Your task to perform on an android device: Search for flights from NYC to Paris Image 0: 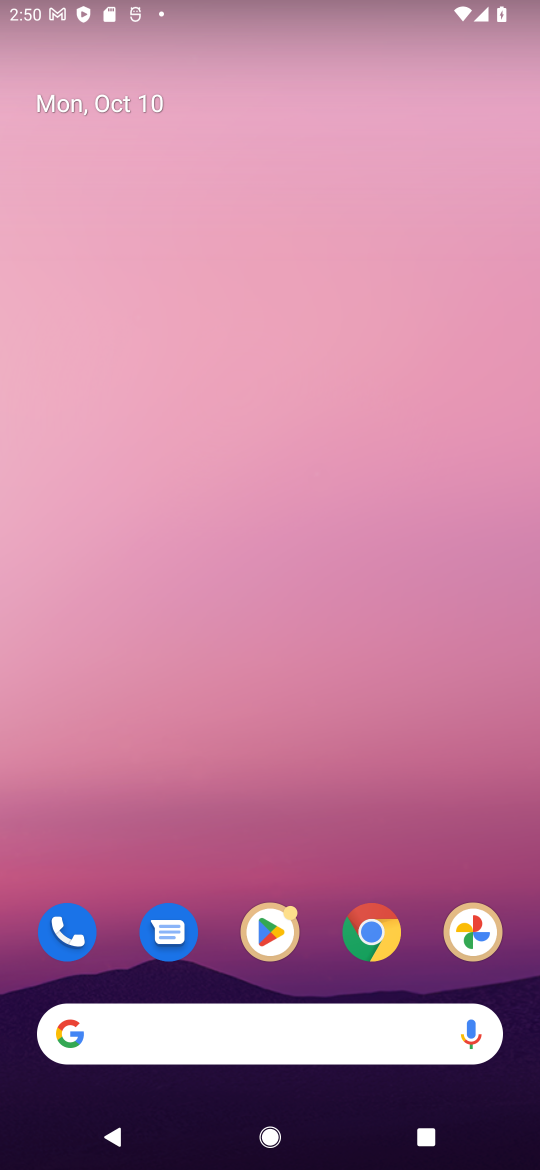
Step 0: press home button
Your task to perform on an android device: Search for flights from NYC to Paris Image 1: 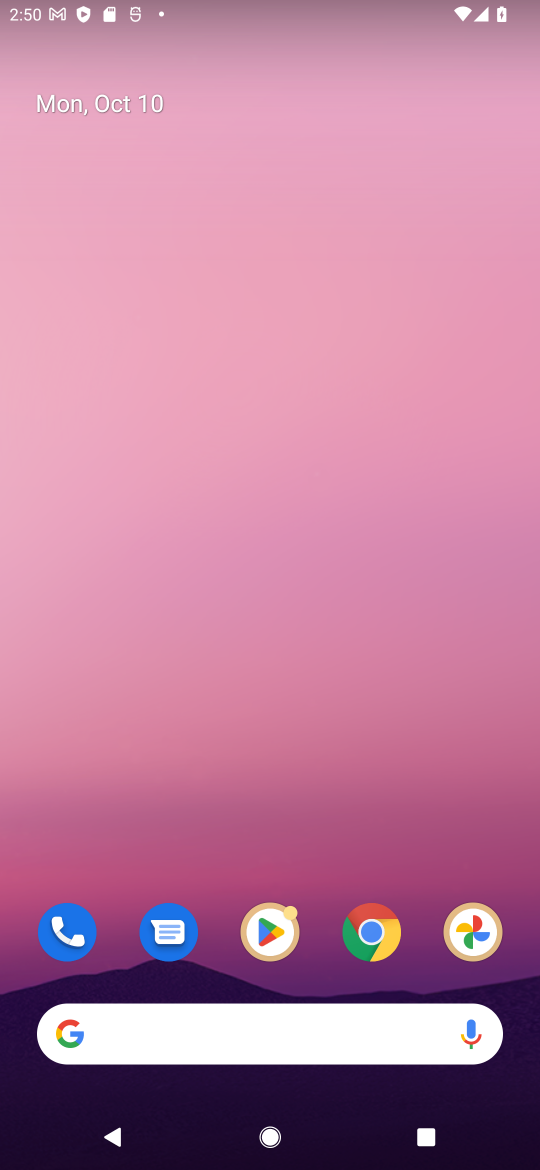
Step 1: click (246, 1044)
Your task to perform on an android device: Search for flights from NYC to Paris Image 2: 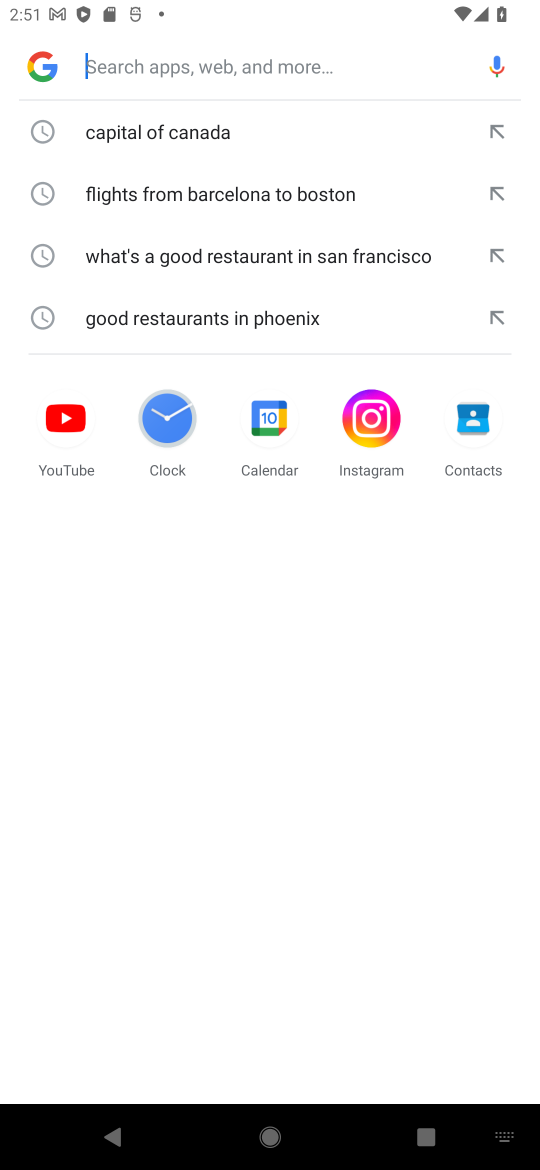
Step 2: type "flights from NYC to Paris"
Your task to perform on an android device: Search for flights from NYC to Paris Image 3: 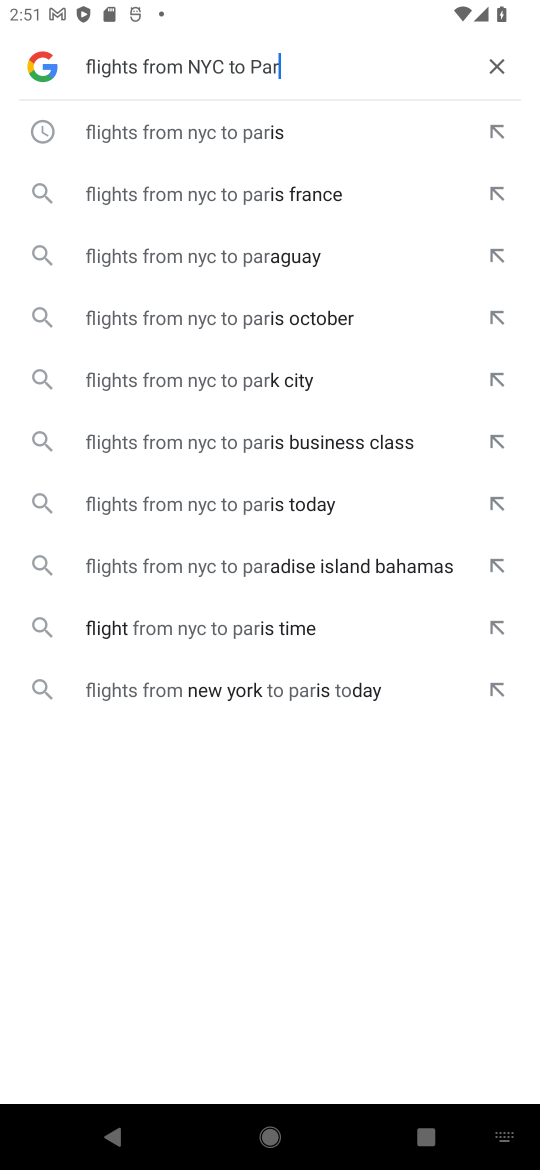
Step 3: press enter
Your task to perform on an android device: Search for flights from NYC to Paris Image 4: 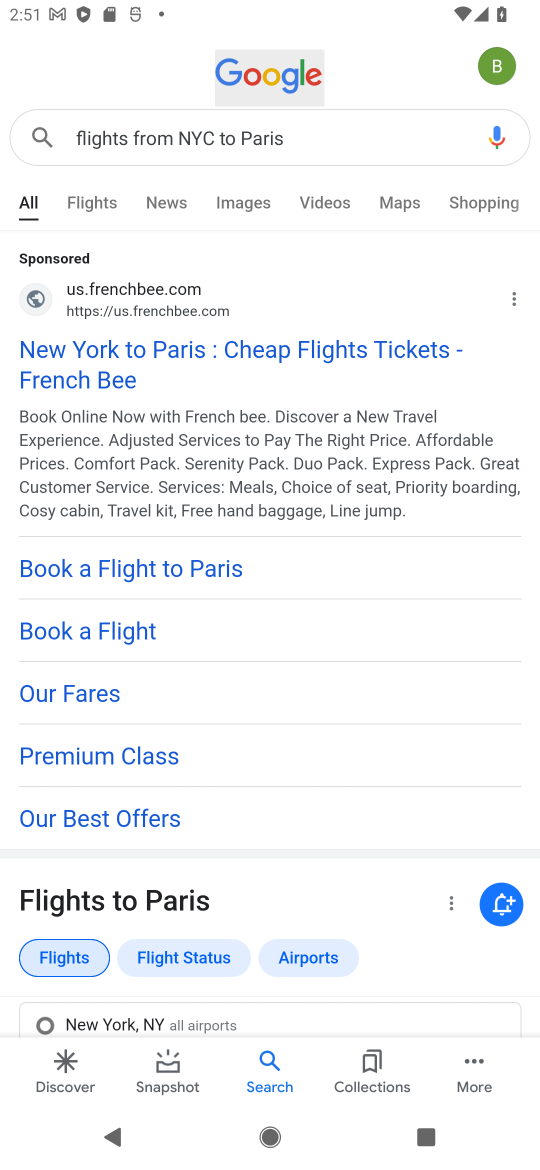
Step 4: drag from (420, 837) to (420, 262)
Your task to perform on an android device: Search for flights from NYC to Paris Image 5: 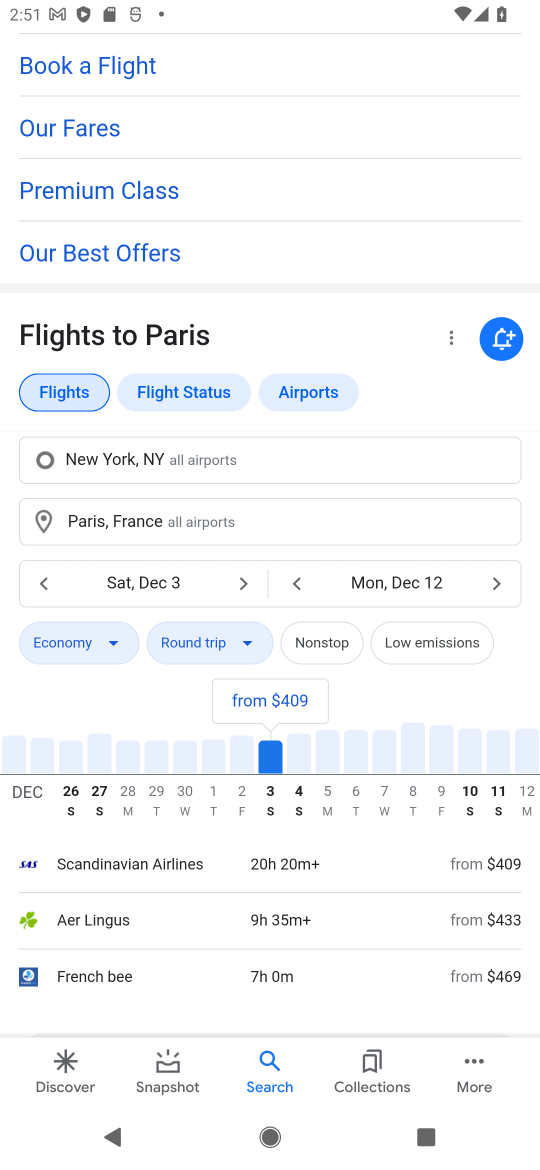
Step 5: drag from (328, 869) to (344, 448)
Your task to perform on an android device: Search for flights from NYC to Paris Image 6: 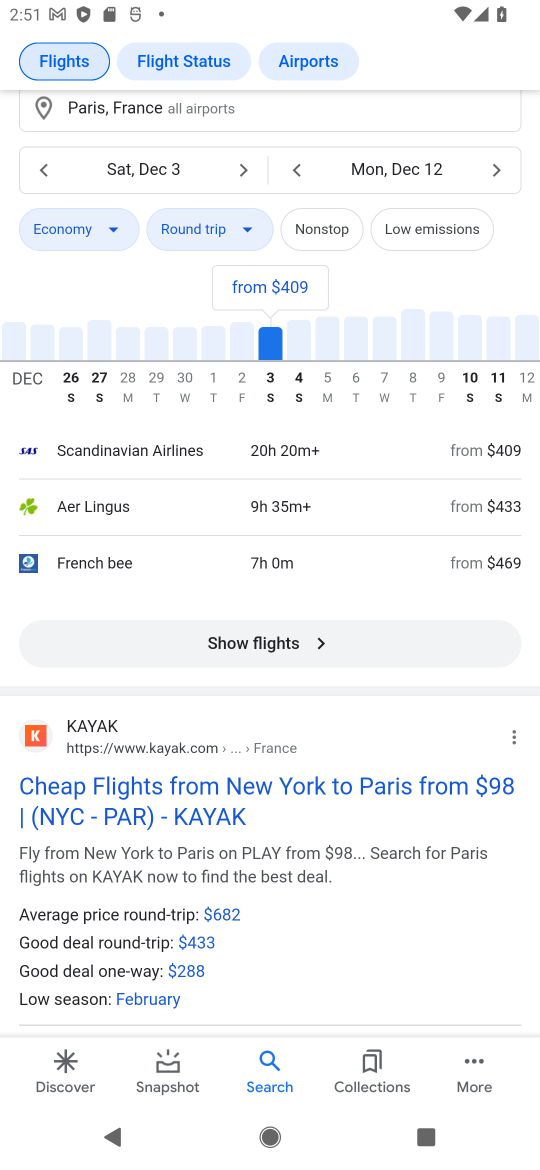
Step 6: click (260, 649)
Your task to perform on an android device: Search for flights from NYC to Paris Image 7: 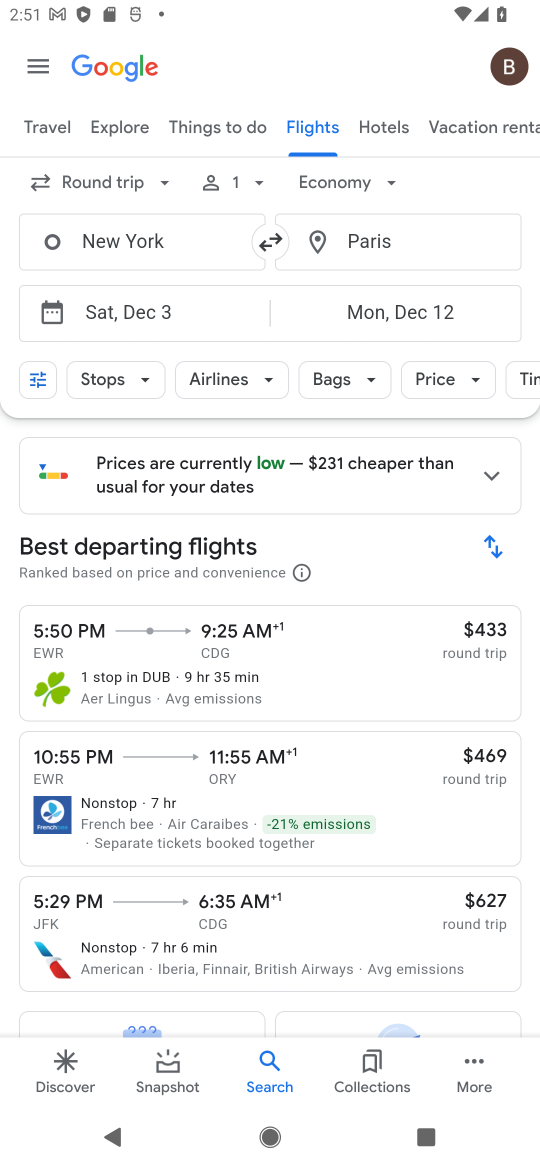
Step 7: task complete